Your task to perform on an android device: check google app version Image 0: 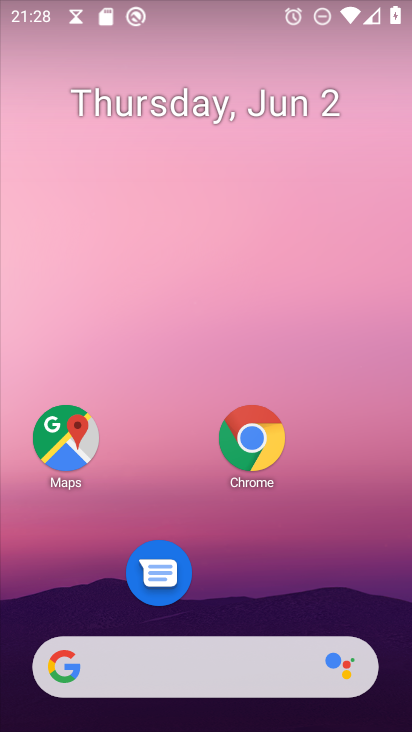
Step 0: press home button
Your task to perform on an android device: check google app version Image 1: 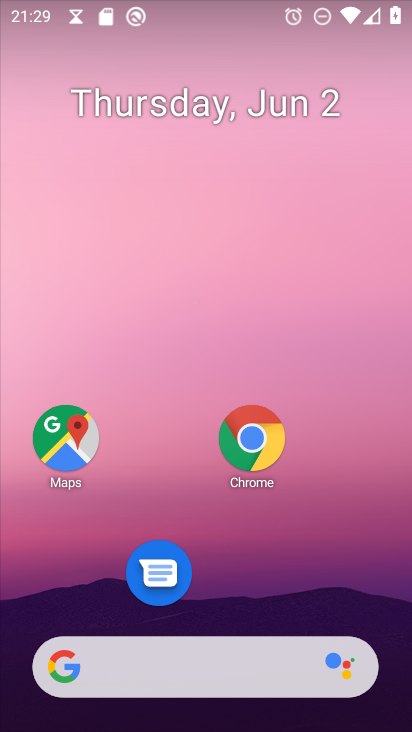
Step 1: drag from (154, 644) to (296, 35)
Your task to perform on an android device: check google app version Image 2: 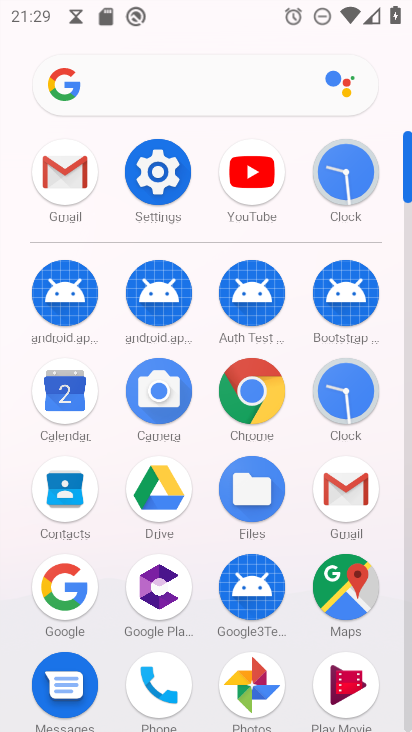
Step 2: drag from (77, 589) to (332, 370)
Your task to perform on an android device: check google app version Image 3: 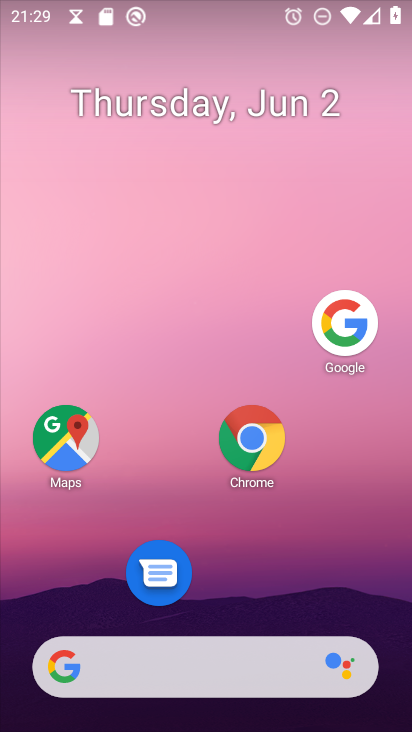
Step 3: click (360, 321)
Your task to perform on an android device: check google app version Image 4: 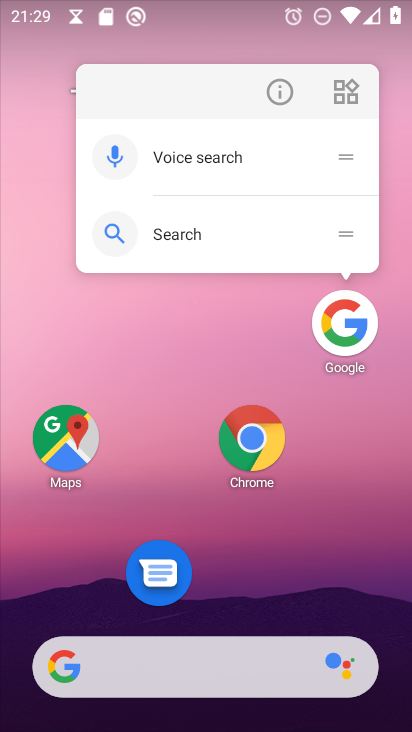
Step 4: click (288, 92)
Your task to perform on an android device: check google app version Image 5: 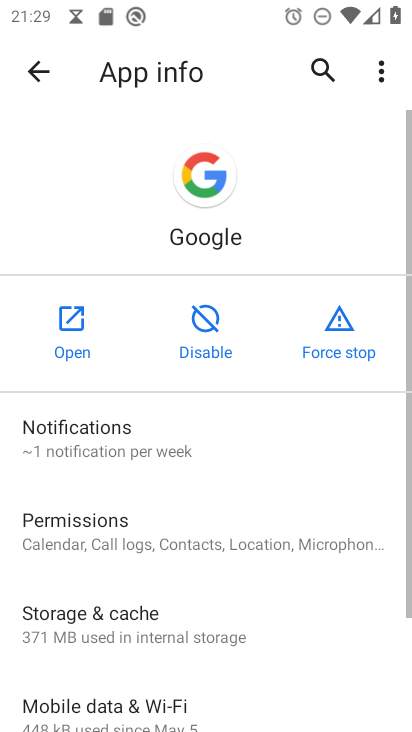
Step 5: drag from (224, 657) to (288, 179)
Your task to perform on an android device: check google app version Image 6: 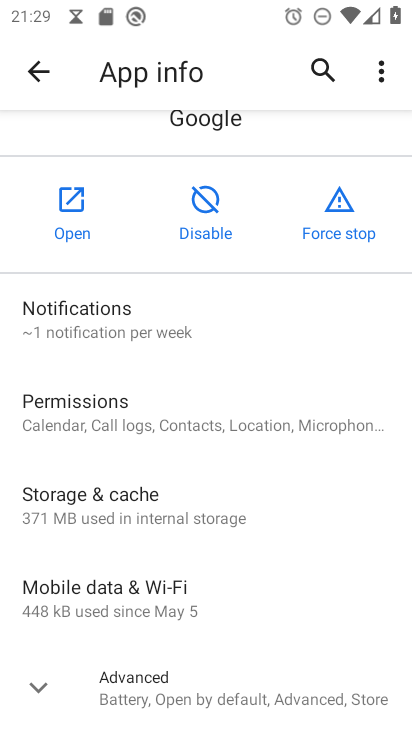
Step 6: click (122, 677)
Your task to perform on an android device: check google app version Image 7: 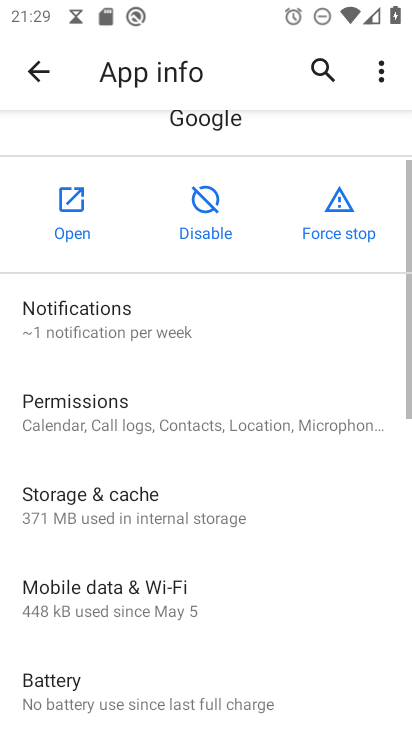
Step 7: task complete